Your task to perform on an android device: Open Google Chrome and open the bookmarks view Image 0: 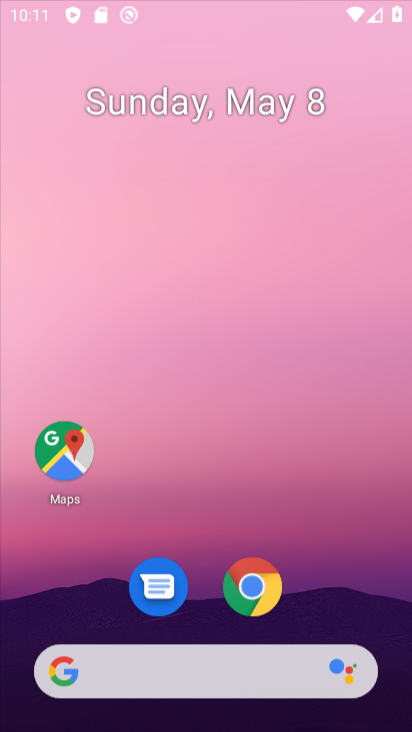
Step 0: click (264, 56)
Your task to perform on an android device: Open Google Chrome and open the bookmarks view Image 1: 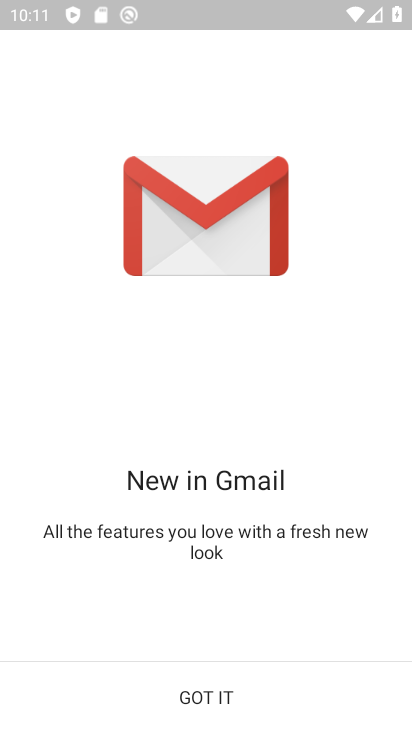
Step 1: click (208, 696)
Your task to perform on an android device: Open Google Chrome and open the bookmarks view Image 2: 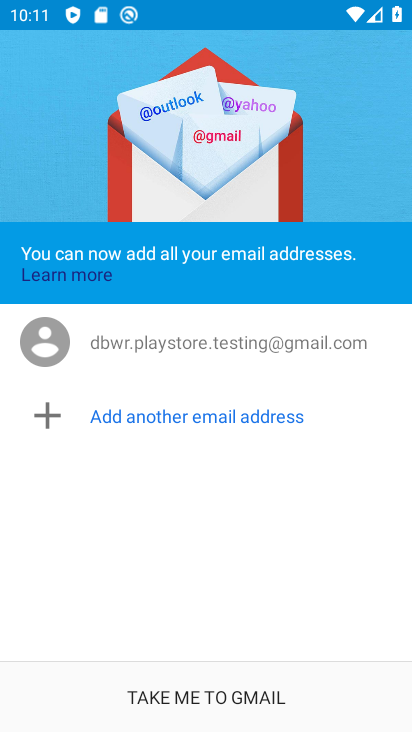
Step 2: press home button
Your task to perform on an android device: Open Google Chrome and open the bookmarks view Image 3: 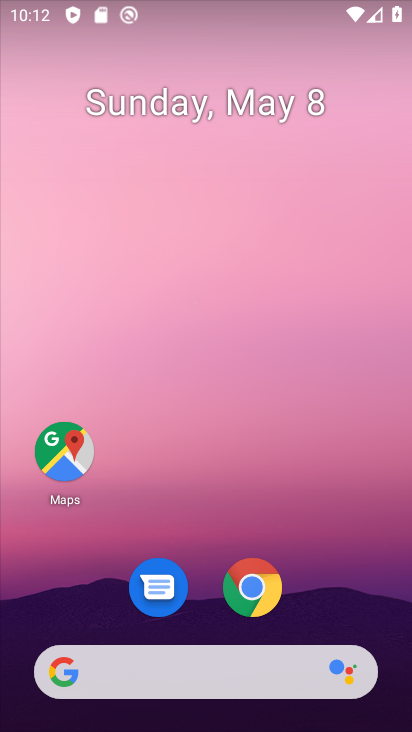
Step 3: click (300, 608)
Your task to perform on an android device: Open Google Chrome and open the bookmarks view Image 4: 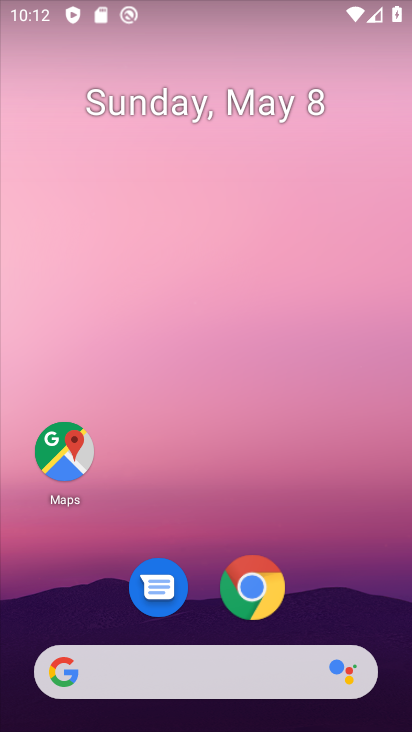
Step 4: drag from (240, 463) to (71, 131)
Your task to perform on an android device: Open Google Chrome and open the bookmarks view Image 5: 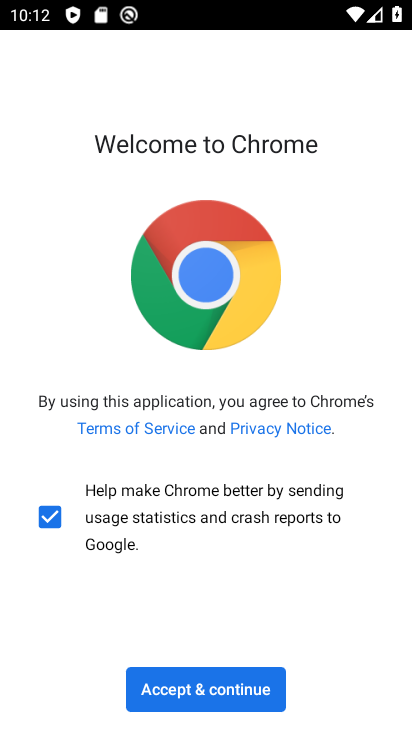
Step 5: click (215, 680)
Your task to perform on an android device: Open Google Chrome and open the bookmarks view Image 6: 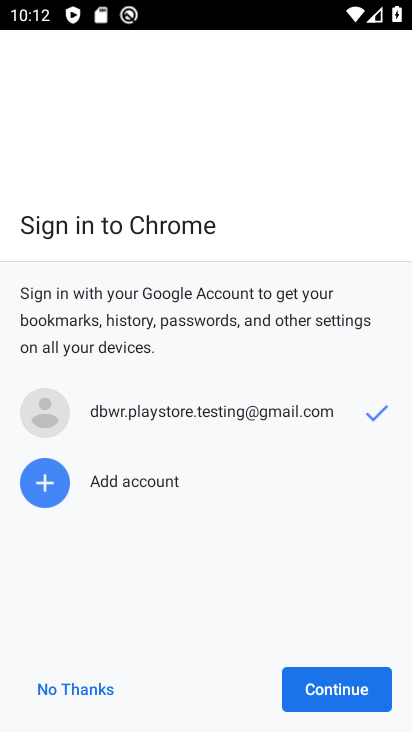
Step 6: click (335, 686)
Your task to perform on an android device: Open Google Chrome and open the bookmarks view Image 7: 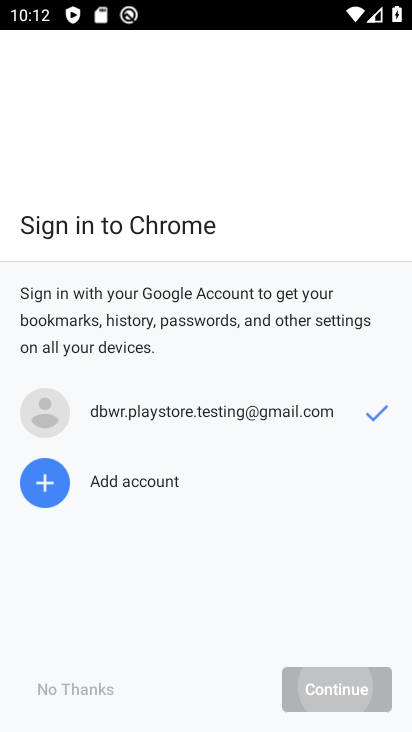
Step 7: click (337, 687)
Your task to perform on an android device: Open Google Chrome and open the bookmarks view Image 8: 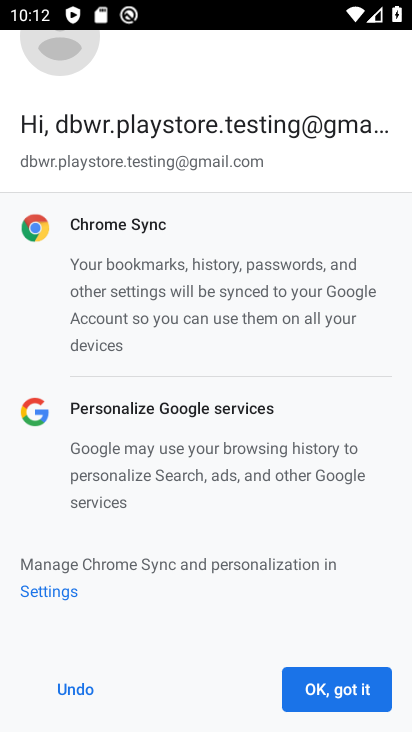
Step 8: click (370, 662)
Your task to perform on an android device: Open Google Chrome and open the bookmarks view Image 9: 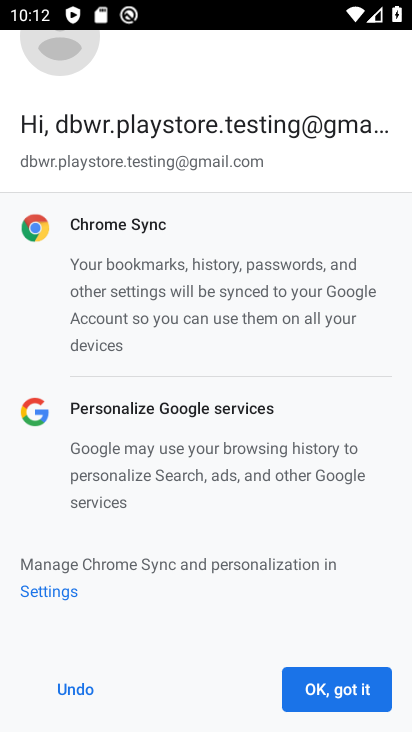
Step 9: click (367, 664)
Your task to perform on an android device: Open Google Chrome and open the bookmarks view Image 10: 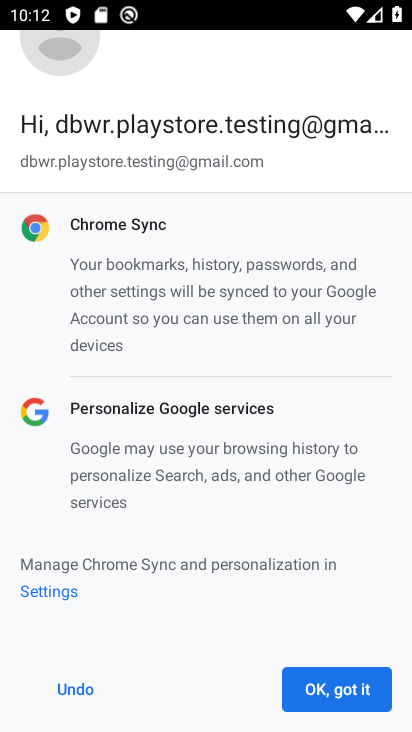
Step 10: click (337, 683)
Your task to perform on an android device: Open Google Chrome and open the bookmarks view Image 11: 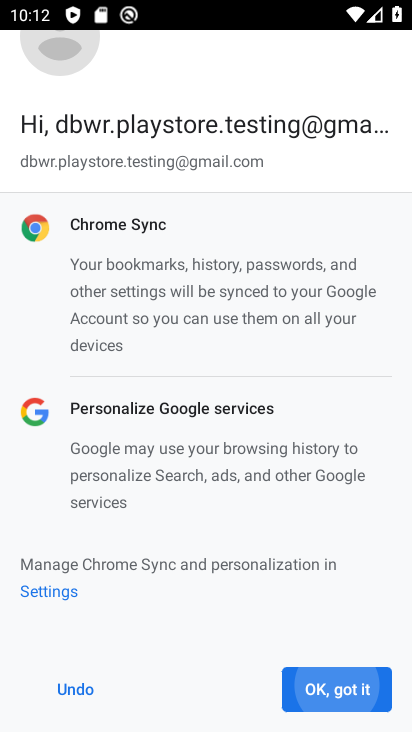
Step 11: click (337, 683)
Your task to perform on an android device: Open Google Chrome and open the bookmarks view Image 12: 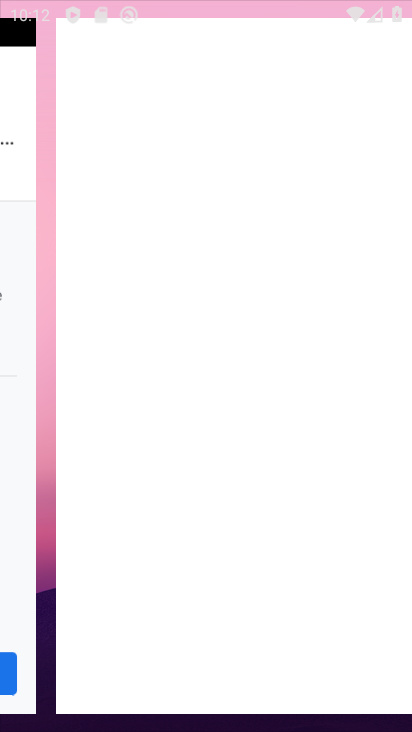
Step 12: click (337, 686)
Your task to perform on an android device: Open Google Chrome and open the bookmarks view Image 13: 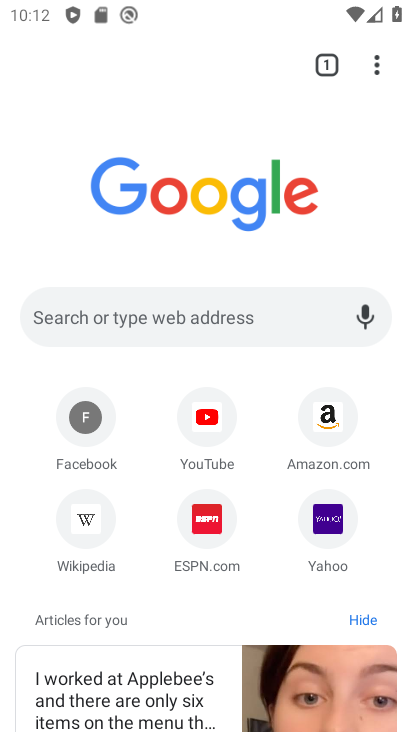
Step 13: task complete